Your task to perform on an android device: Open Android settings Image 0: 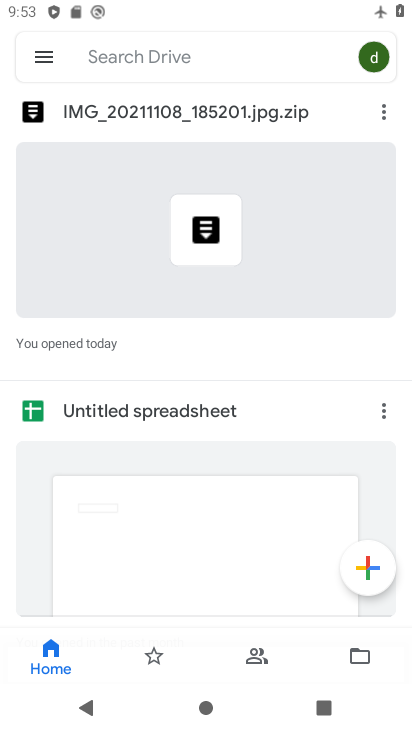
Step 0: press home button
Your task to perform on an android device: Open Android settings Image 1: 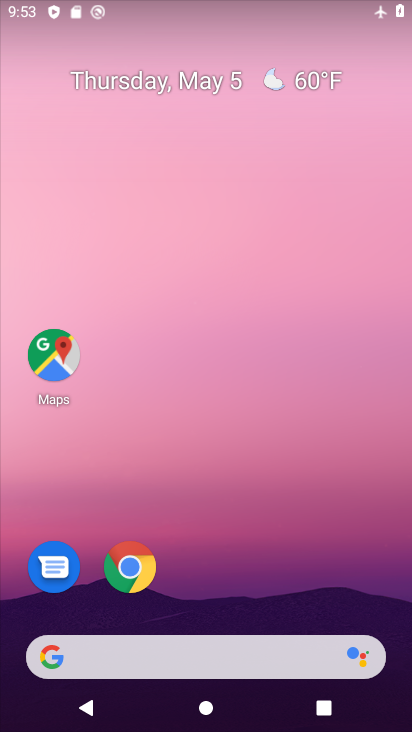
Step 1: drag from (242, 612) to (232, 205)
Your task to perform on an android device: Open Android settings Image 2: 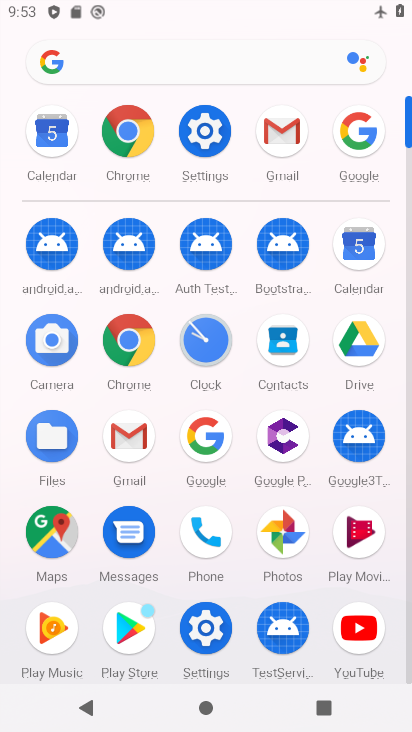
Step 2: click (222, 149)
Your task to perform on an android device: Open Android settings Image 3: 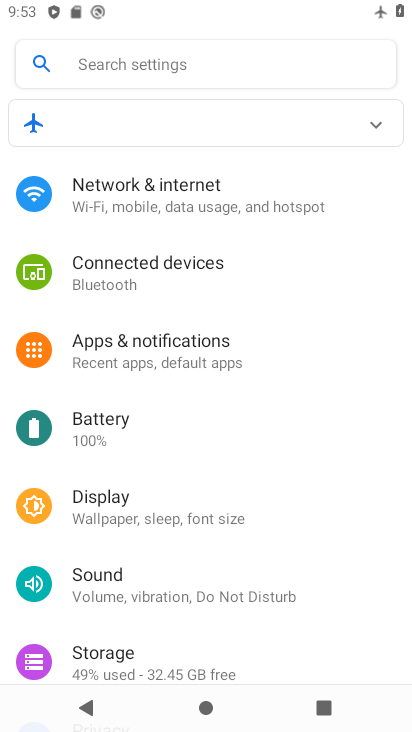
Step 3: task complete